Your task to perform on an android device: Is it going to rain today? Image 0: 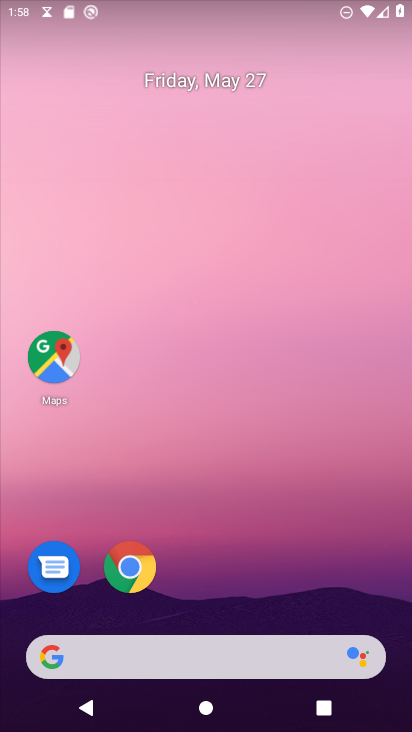
Step 0: drag from (232, 624) to (194, 120)
Your task to perform on an android device: Is it going to rain today? Image 1: 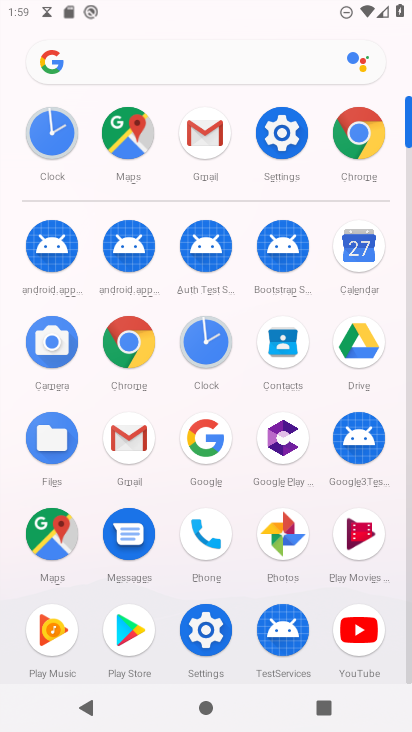
Step 1: click (369, 136)
Your task to perform on an android device: Is it going to rain today? Image 2: 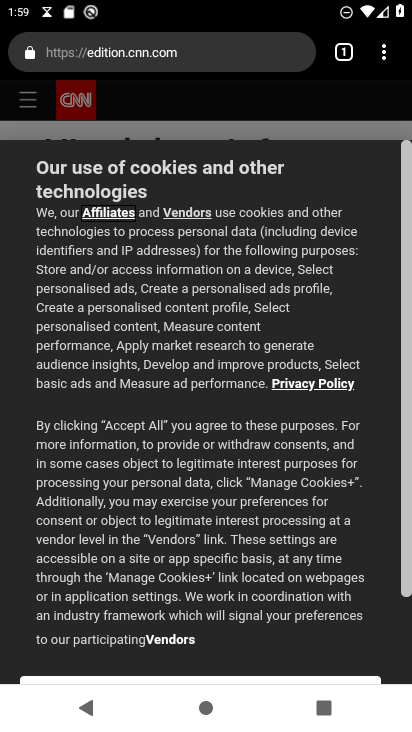
Step 2: click (247, 58)
Your task to perform on an android device: Is it going to rain today? Image 3: 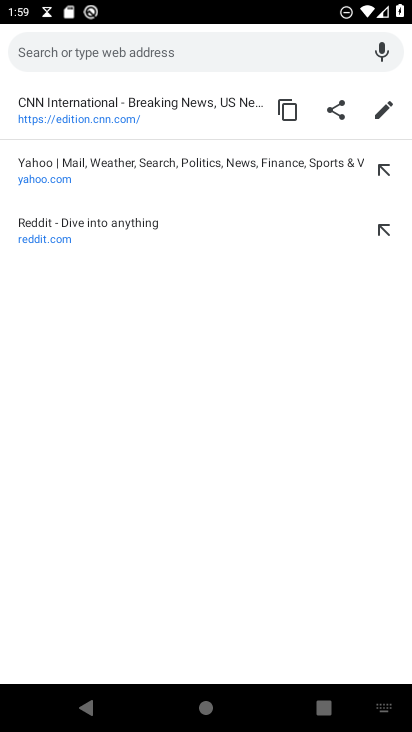
Step 3: click (247, 58)
Your task to perform on an android device: Is it going to rain today? Image 4: 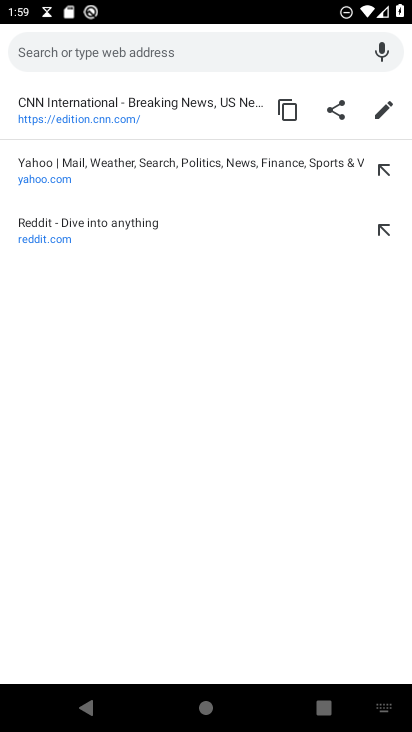
Step 4: type "Is it going to rain today?"
Your task to perform on an android device: Is it going to rain today? Image 5: 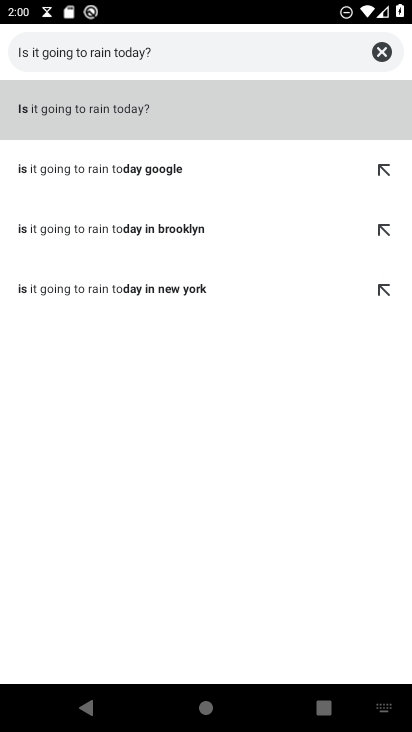
Step 5: click (104, 108)
Your task to perform on an android device: Is it going to rain today? Image 6: 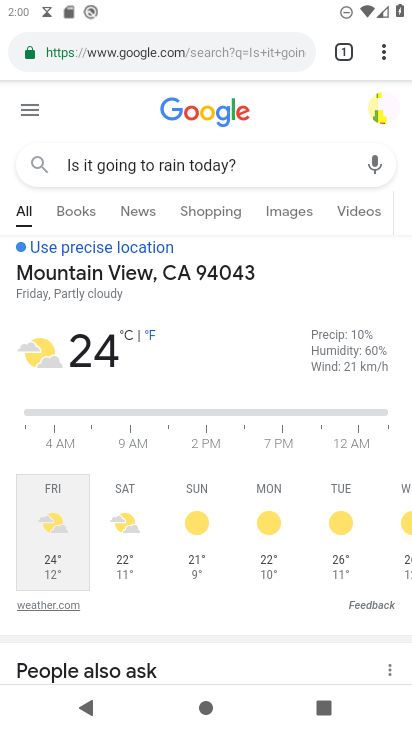
Step 6: task complete